Your task to perform on an android device: Open maps Image 0: 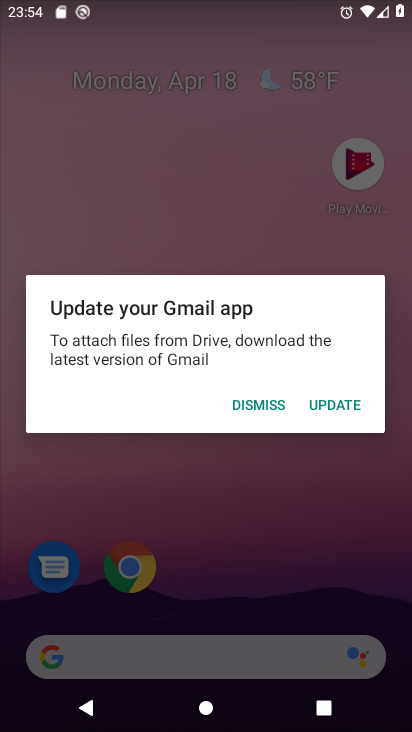
Step 0: click (253, 409)
Your task to perform on an android device: Open maps Image 1: 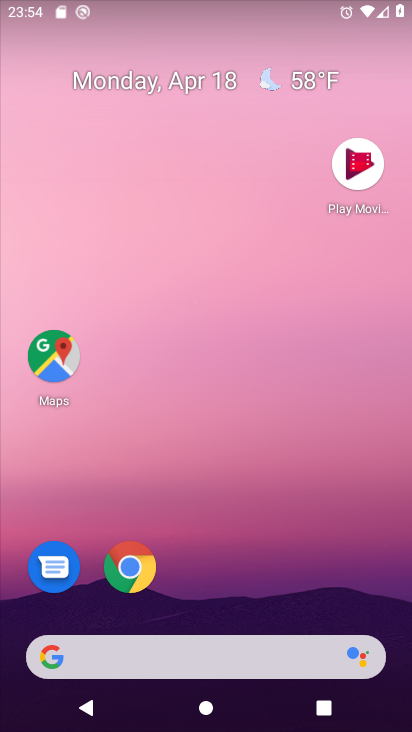
Step 1: press home button
Your task to perform on an android device: Open maps Image 2: 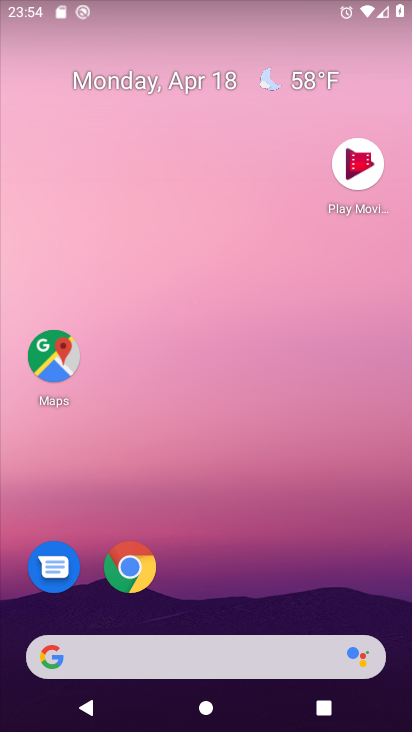
Step 2: click (52, 352)
Your task to perform on an android device: Open maps Image 3: 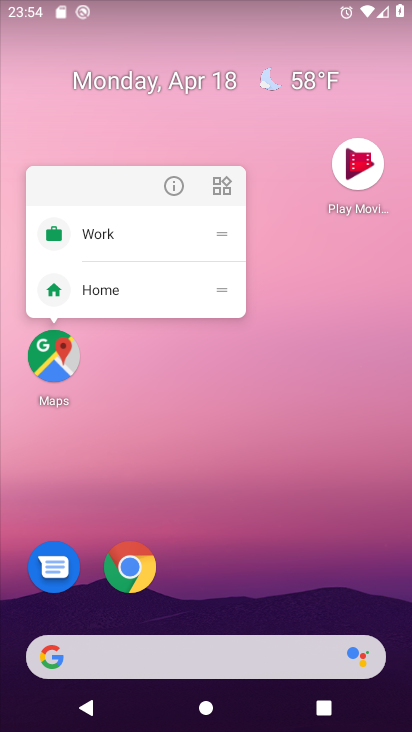
Step 3: click (172, 185)
Your task to perform on an android device: Open maps Image 4: 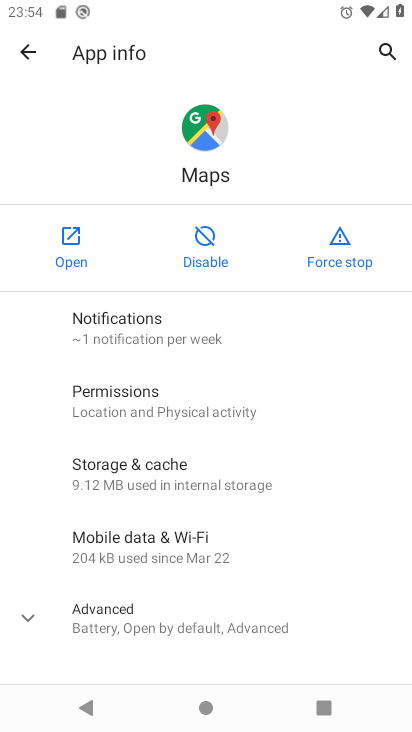
Step 4: click (71, 240)
Your task to perform on an android device: Open maps Image 5: 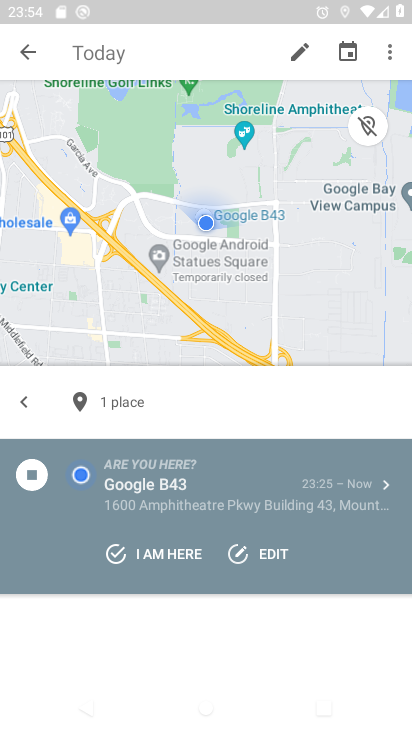
Step 5: task complete